Your task to perform on an android device: turn off notifications in google photos Image 0: 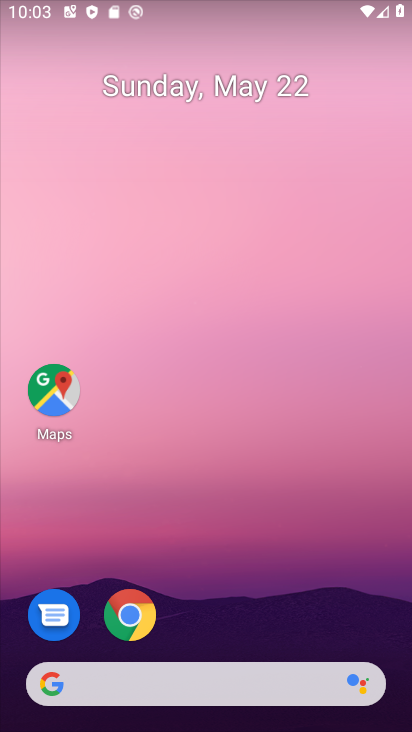
Step 0: drag from (290, 626) to (250, 184)
Your task to perform on an android device: turn off notifications in google photos Image 1: 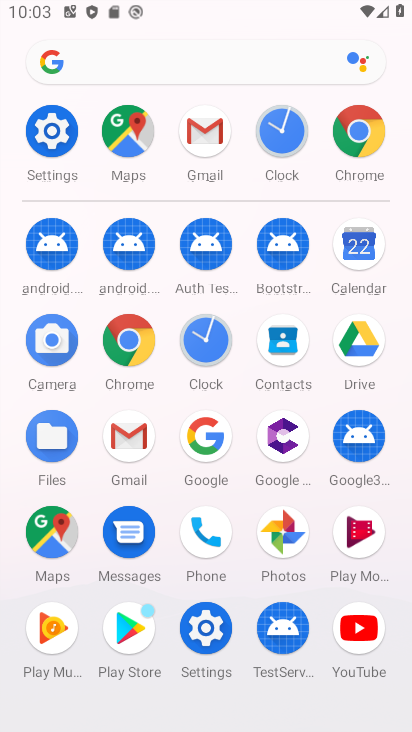
Step 1: click (292, 540)
Your task to perform on an android device: turn off notifications in google photos Image 2: 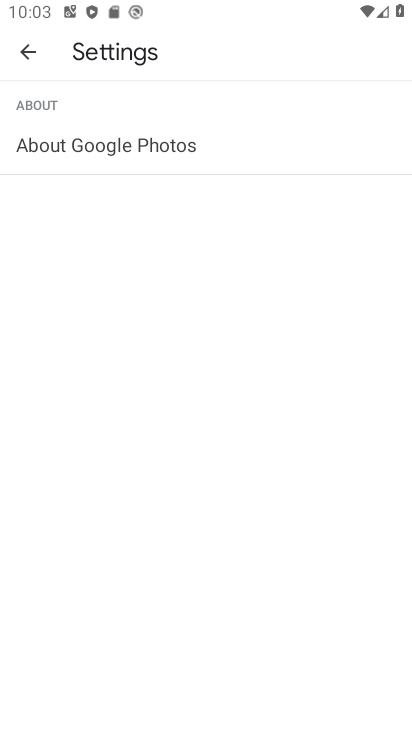
Step 2: click (29, 54)
Your task to perform on an android device: turn off notifications in google photos Image 3: 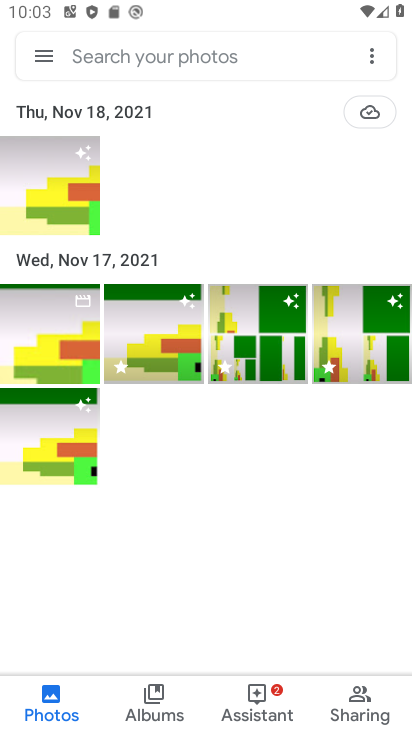
Step 3: click (31, 60)
Your task to perform on an android device: turn off notifications in google photos Image 4: 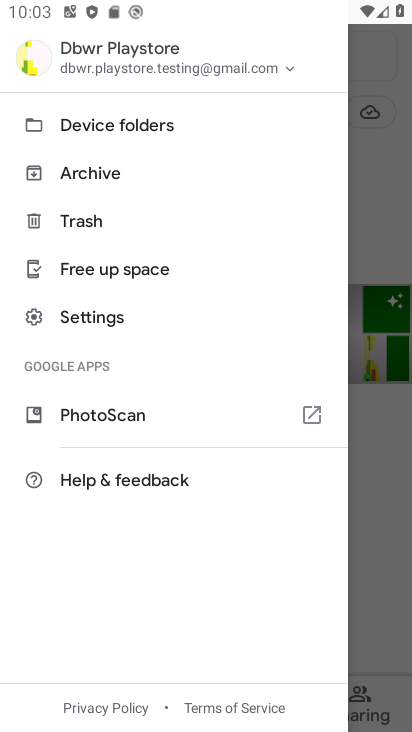
Step 4: click (97, 324)
Your task to perform on an android device: turn off notifications in google photos Image 5: 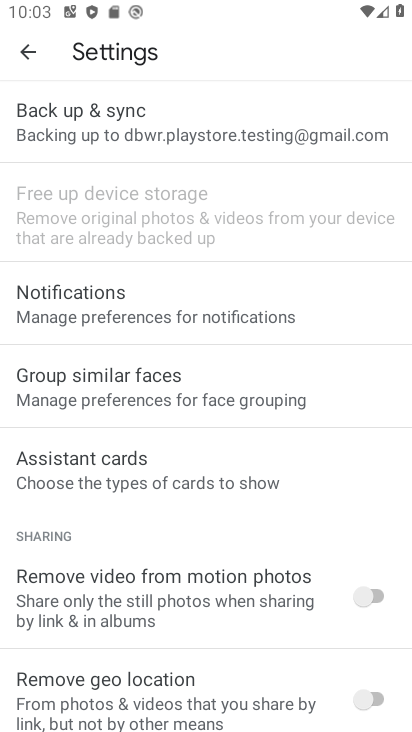
Step 5: click (182, 324)
Your task to perform on an android device: turn off notifications in google photos Image 6: 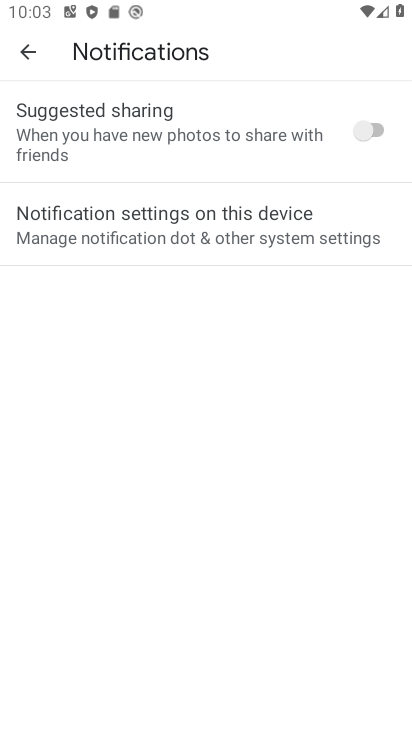
Step 6: click (212, 226)
Your task to perform on an android device: turn off notifications in google photos Image 7: 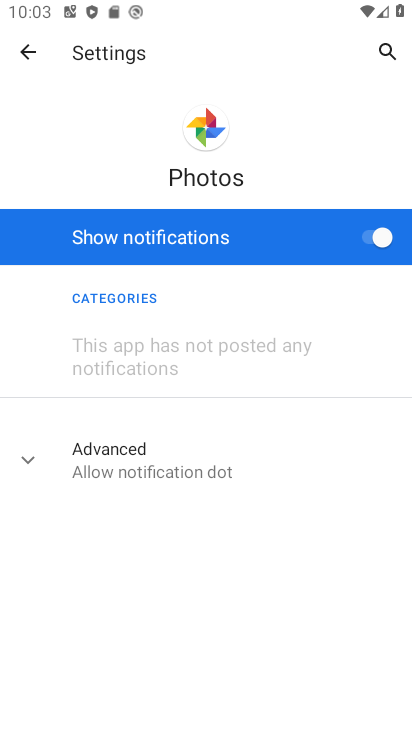
Step 7: click (380, 236)
Your task to perform on an android device: turn off notifications in google photos Image 8: 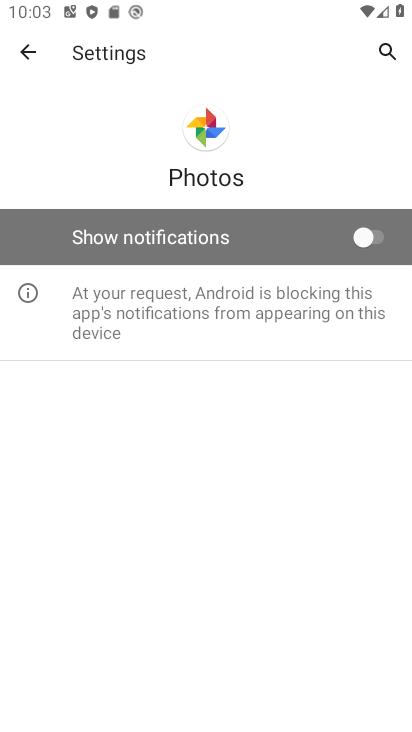
Step 8: task complete